Your task to perform on an android device: Search for Italian restaurants on Maps Image 0: 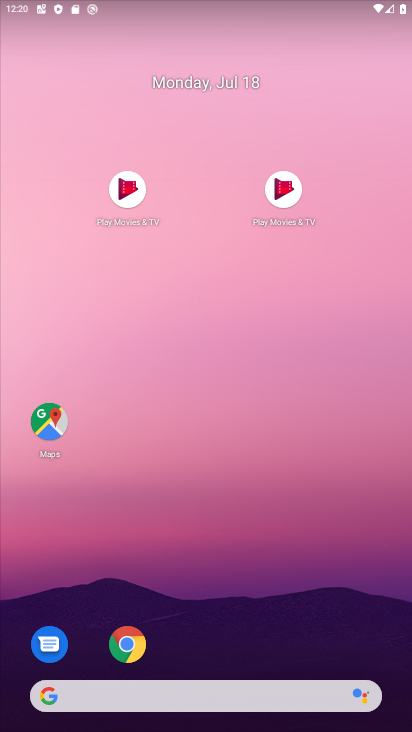
Step 0: drag from (316, 629) to (335, 187)
Your task to perform on an android device: Search for Italian restaurants on Maps Image 1: 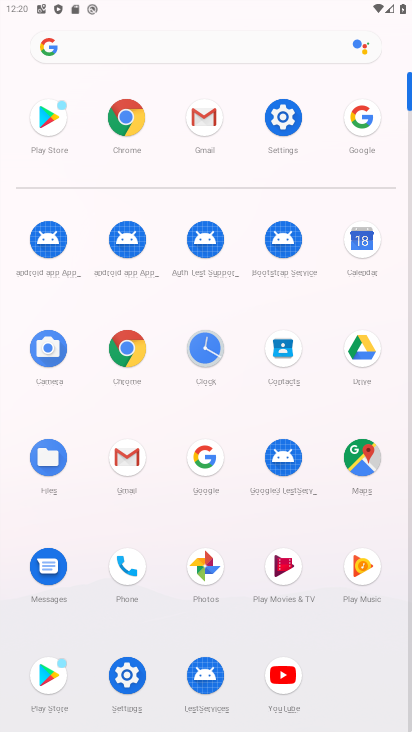
Step 1: click (363, 455)
Your task to perform on an android device: Search for Italian restaurants on Maps Image 2: 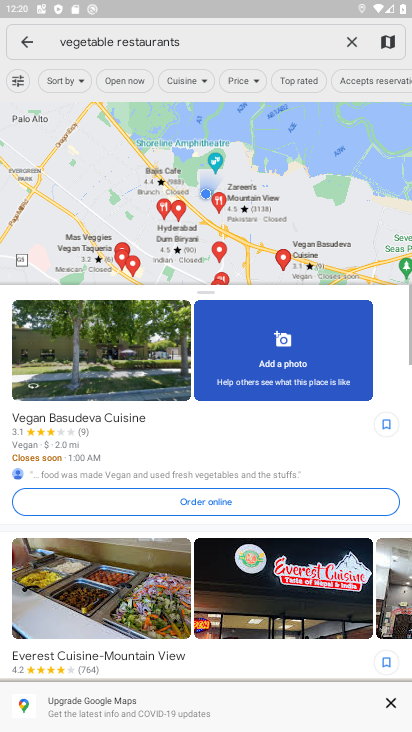
Step 2: click (247, 42)
Your task to perform on an android device: Search for Italian restaurants on Maps Image 3: 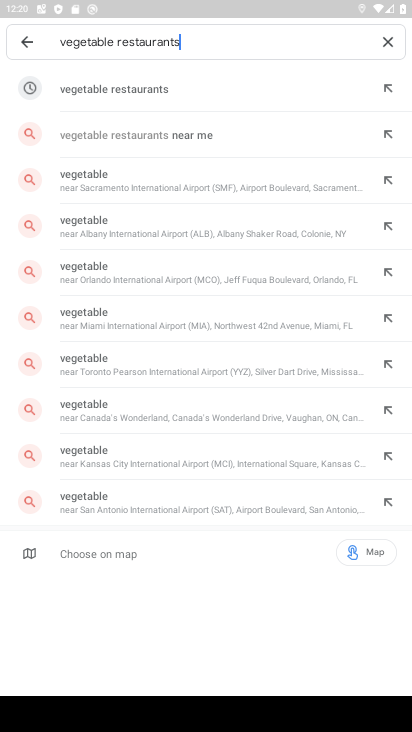
Step 3: click (387, 39)
Your task to perform on an android device: Search for Italian restaurants on Maps Image 4: 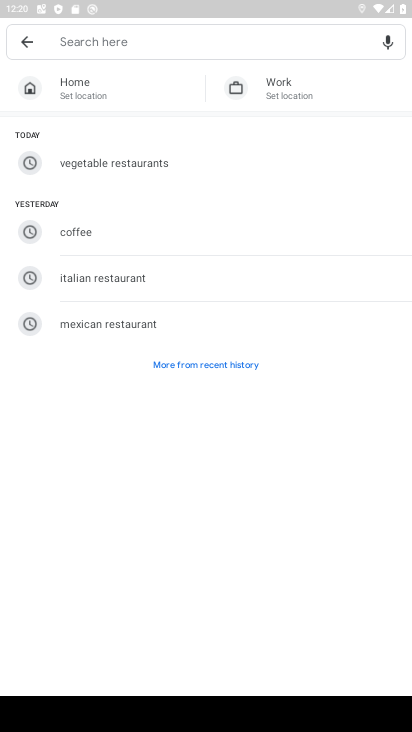
Step 4: type "Italian restaurants"
Your task to perform on an android device: Search for Italian restaurants on Maps Image 5: 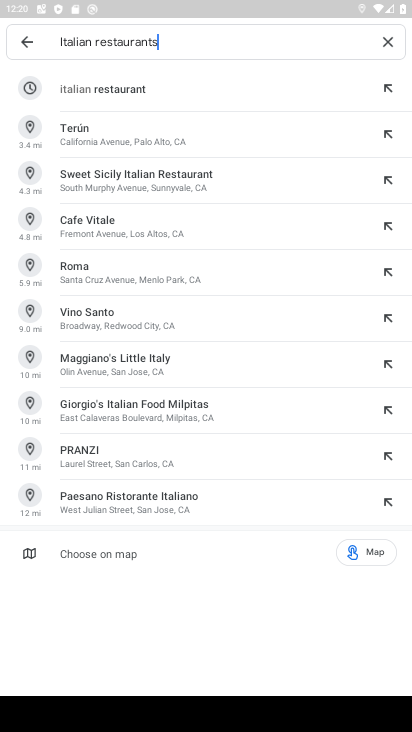
Step 5: press enter
Your task to perform on an android device: Search for Italian restaurants on Maps Image 6: 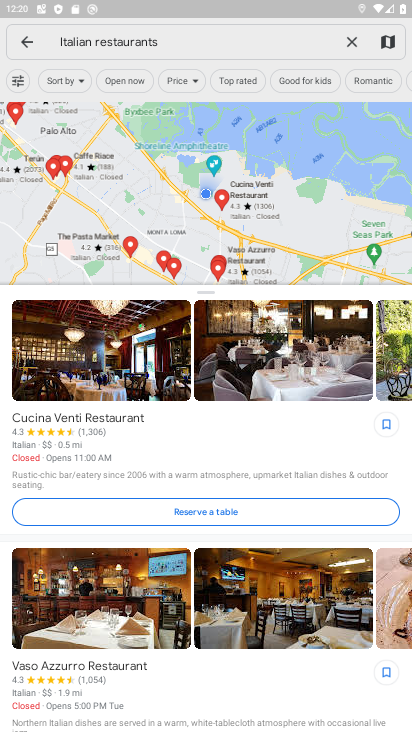
Step 6: task complete